Your task to perform on an android device: Open eBay Image 0: 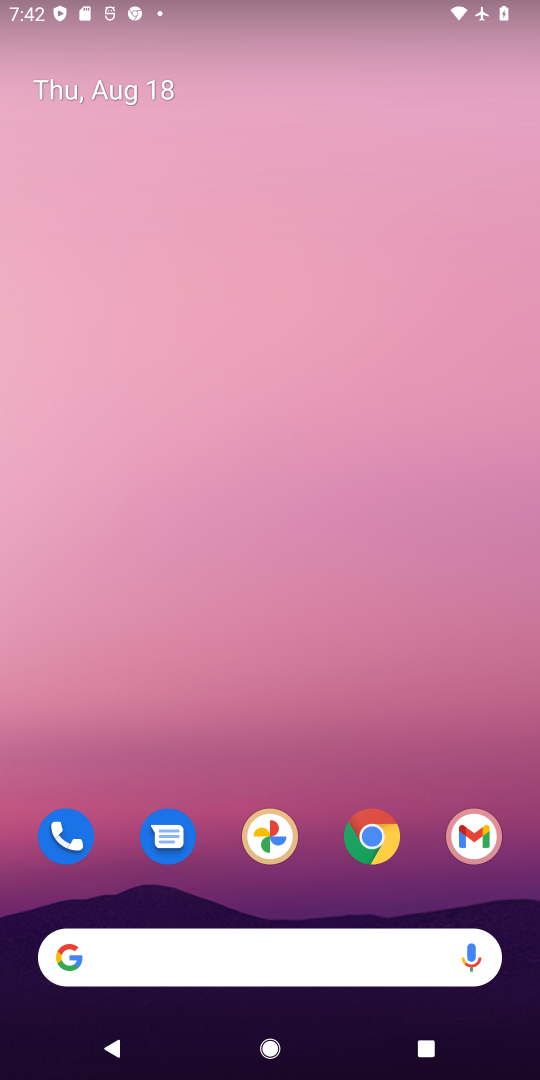
Step 0: drag from (264, 760) to (294, 173)
Your task to perform on an android device: Open eBay Image 1: 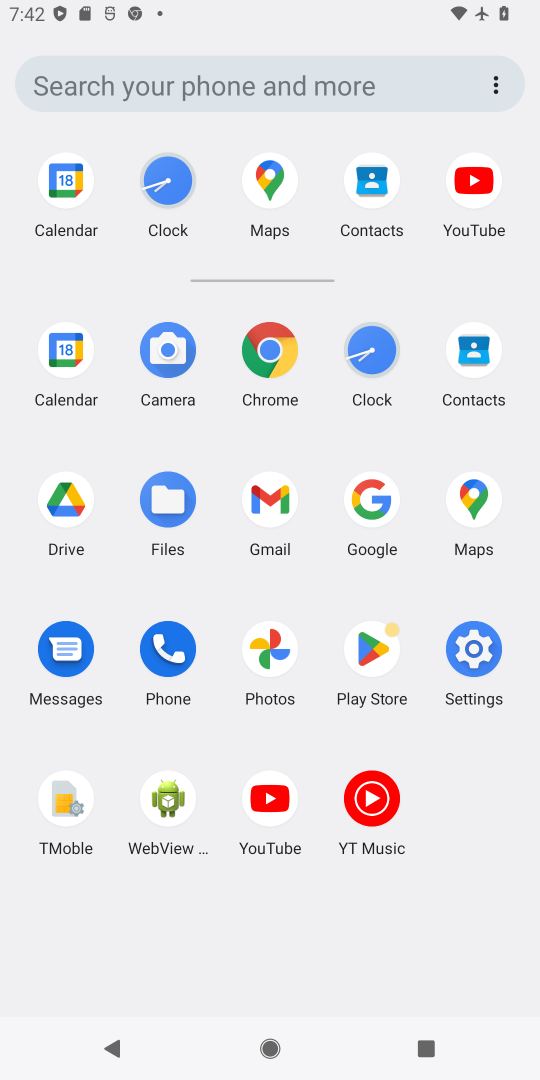
Step 1: click (273, 347)
Your task to perform on an android device: Open eBay Image 2: 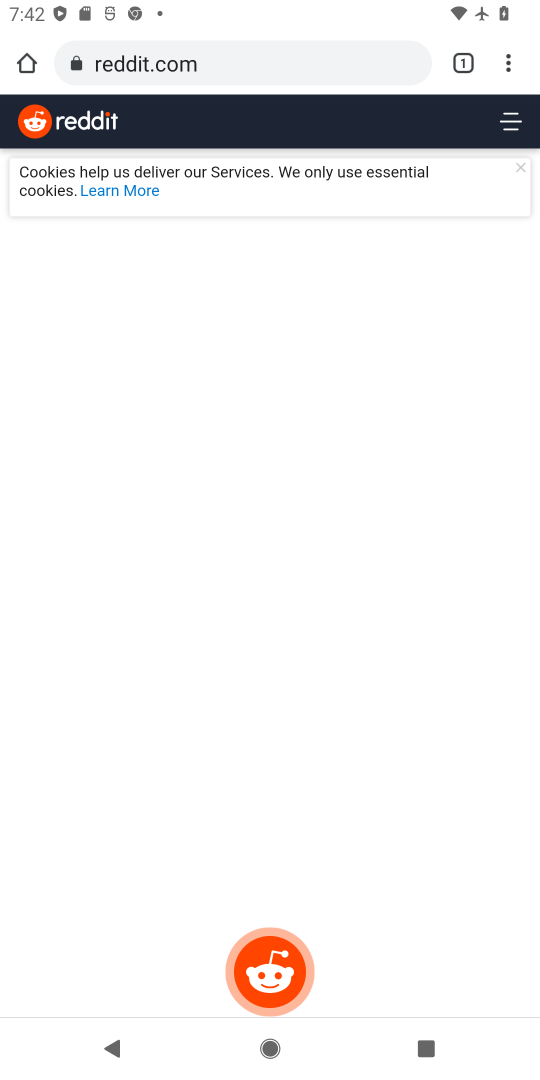
Step 2: click (212, 58)
Your task to perform on an android device: Open eBay Image 3: 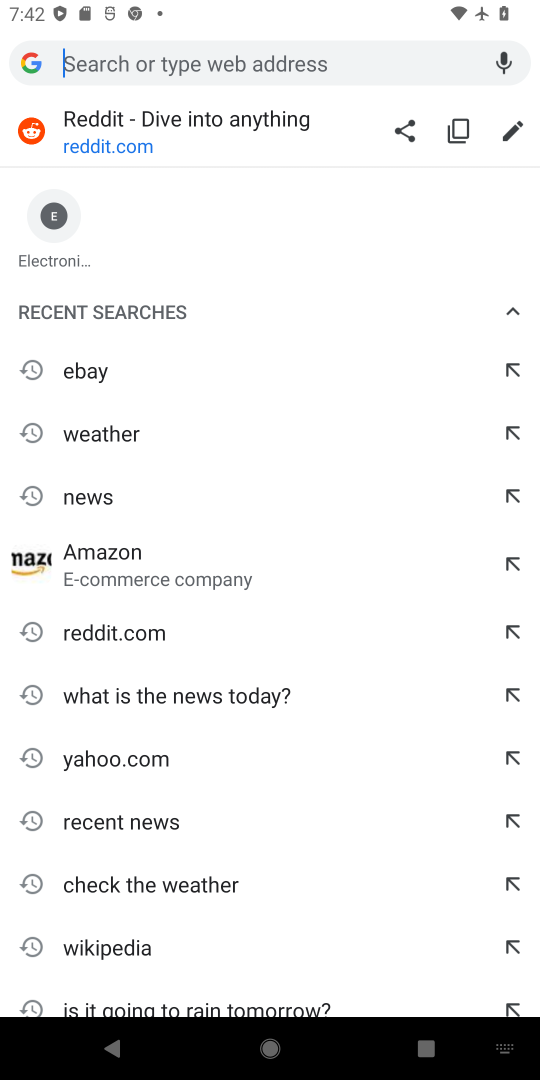
Step 3: click (92, 372)
Your task to perform on an android device: Open eBay Image 4: 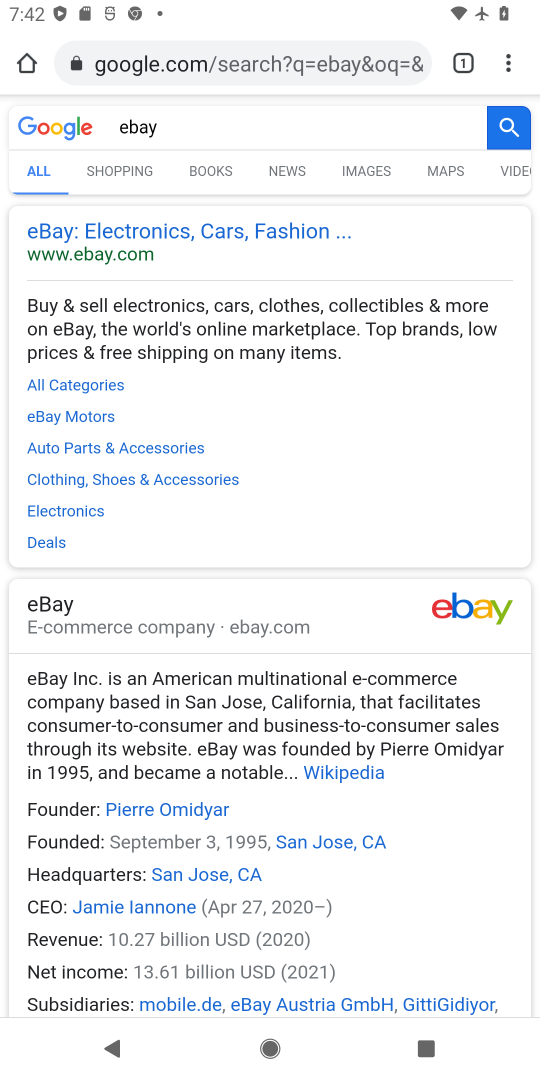
Step 4: click (111, 232)
Your task to perform on an android device: Open eBay Image 5: 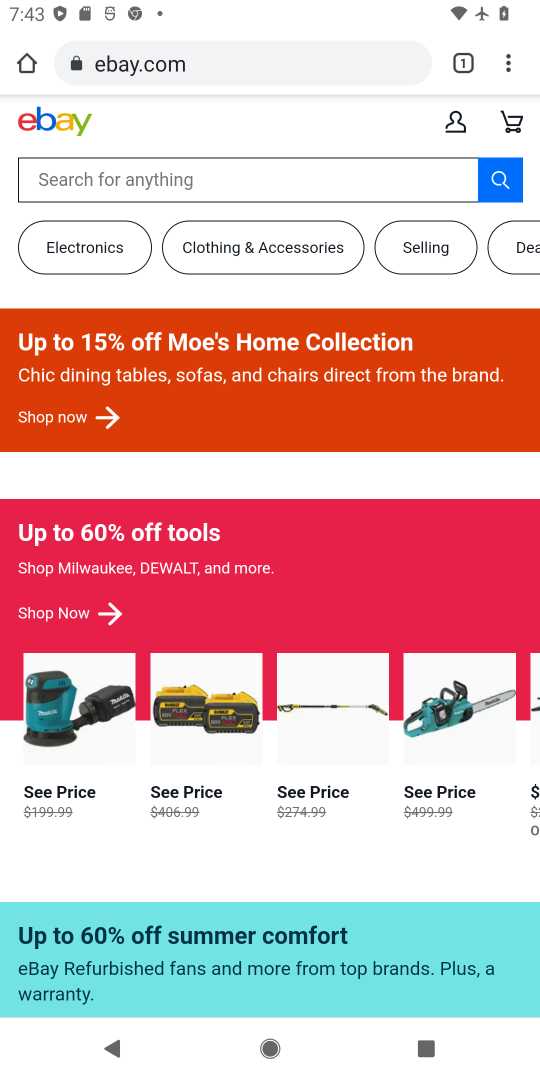
Step 5: task complete